Your task to perform on an android device: check battery use Image 0: 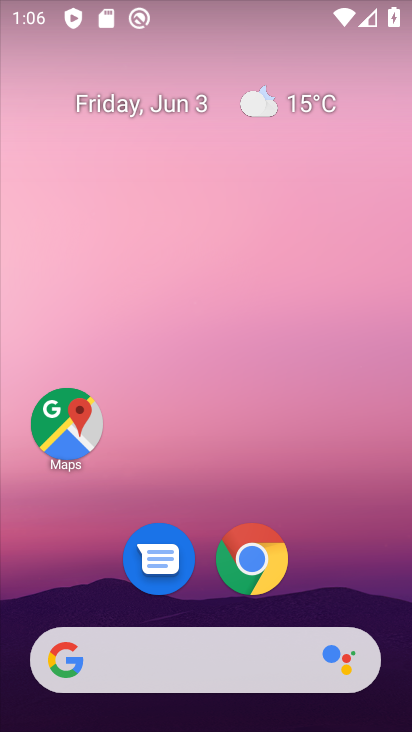
Step 0: drag from (72, 602) to (257, 158)
Your task to perform on an android device: check battery use Image 1: 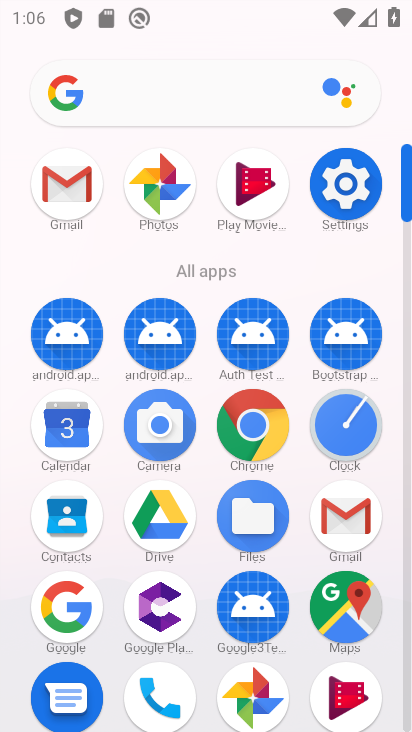
Step 1: drag from (236, 623) to (360, 198)
Your task to perform on an android device: check battery use Image 2: 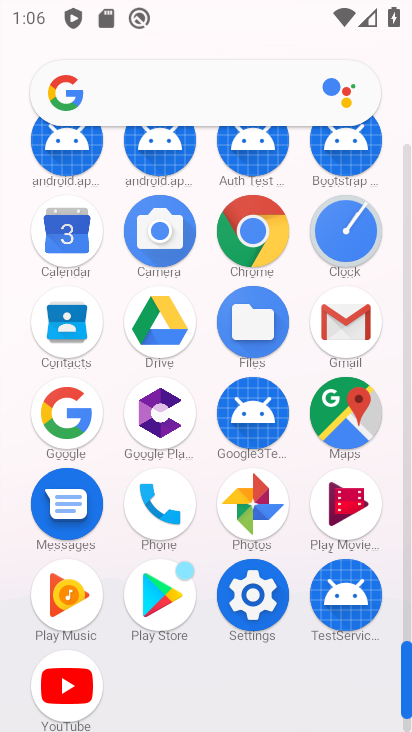
Step 2: click (249, 600)
Your task to perform on an android device: check battery use Image 3: 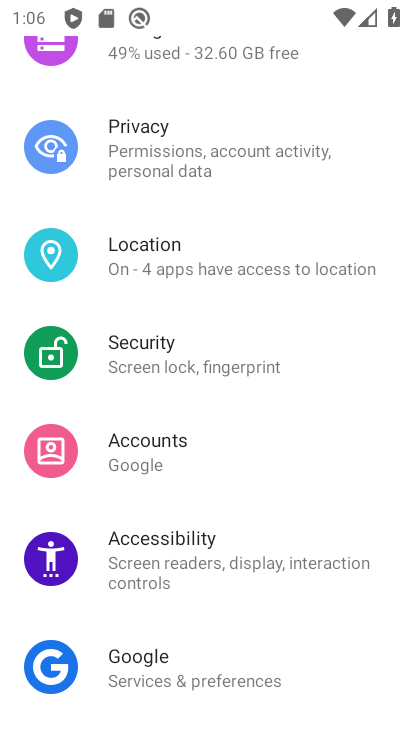
Step 3: drag from (246, 199) to (244, 654)
Your task to perform on an android device: check battery use Image 4: 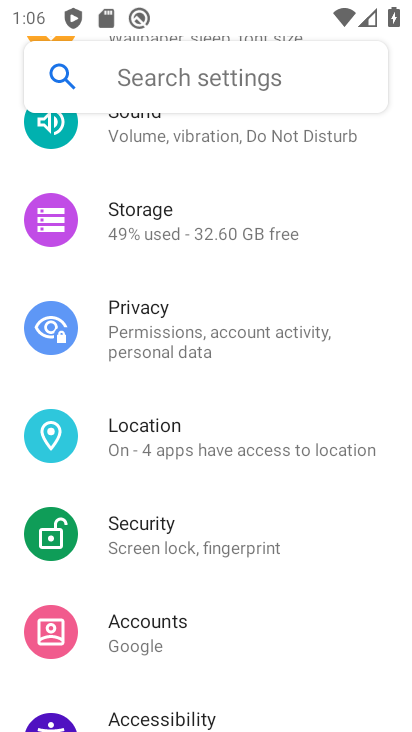
Step 4: drag from (255, 238) to (207, 602)
Your task to perform on an android device: check battery use Image 5: 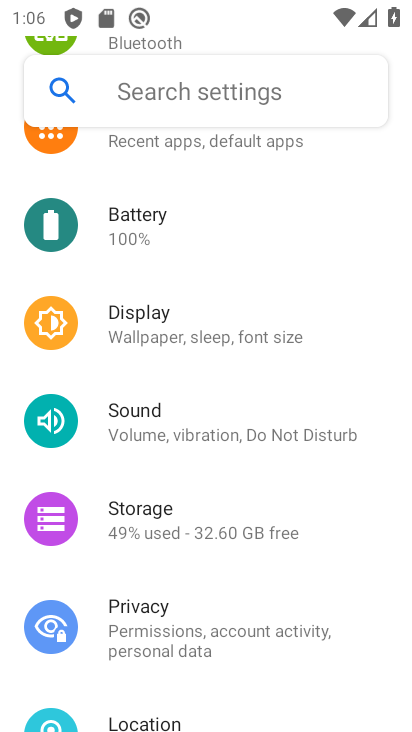
Step 5: click (197, 225)
Your task to perform on an android device: check battery use Image 6: 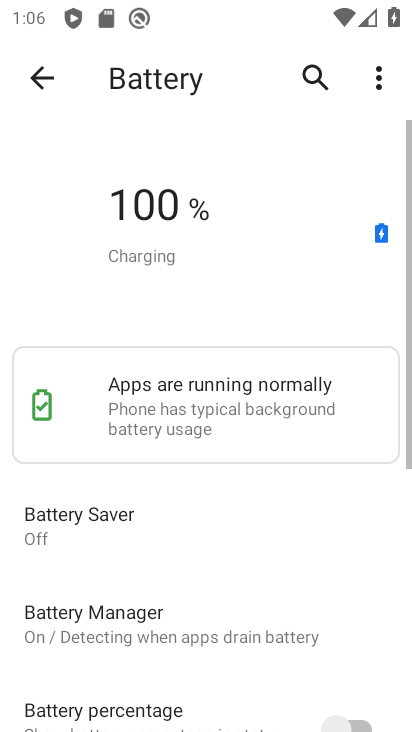
Step 6: click (398, 84)
Your task to perform on an android device: check battery use Image 7: 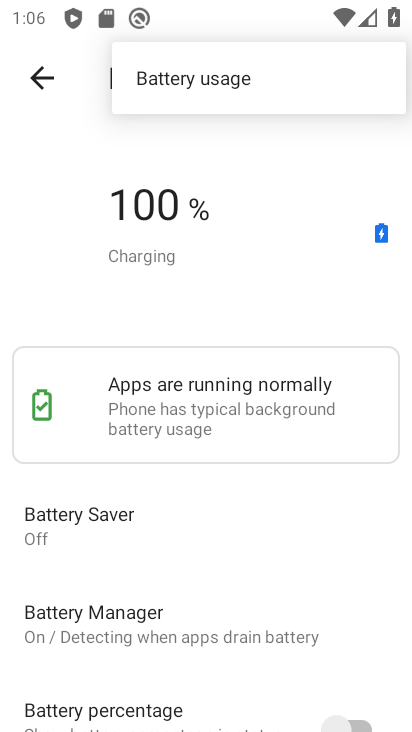
Step 7: click (349, 95)
Your task to perform on an android device: check battery use Image 8: 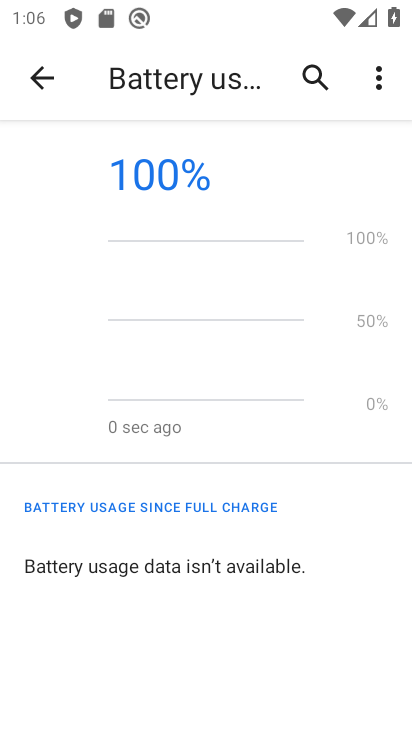
Step 8: task complete